Your task to perform on an android device: set the timer Image 0: 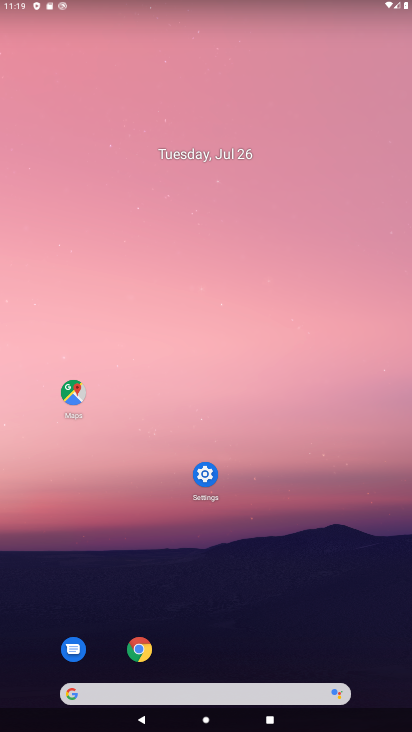
Step 0: click (393, 66)
Your task to perform on an android device: set the timer Image 1: 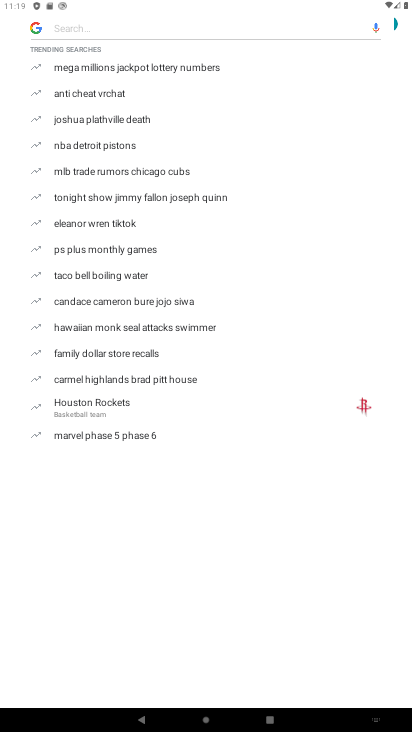
Step 1: press back button
Your task to perform on an android device: set the timer Image 2: 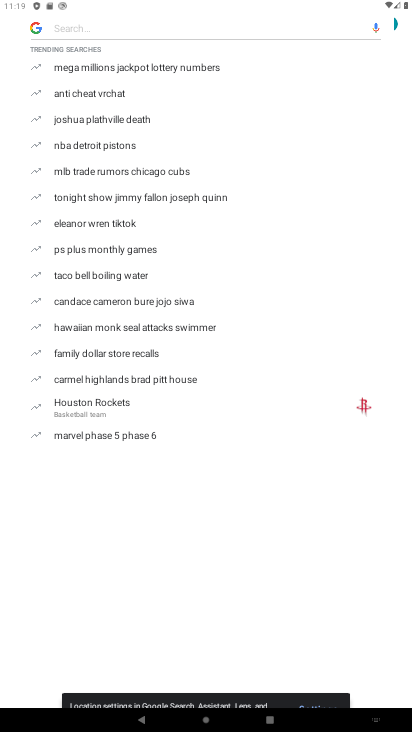
Step 2: press back button
Your task to perform on an android device: set the timer Image 3: 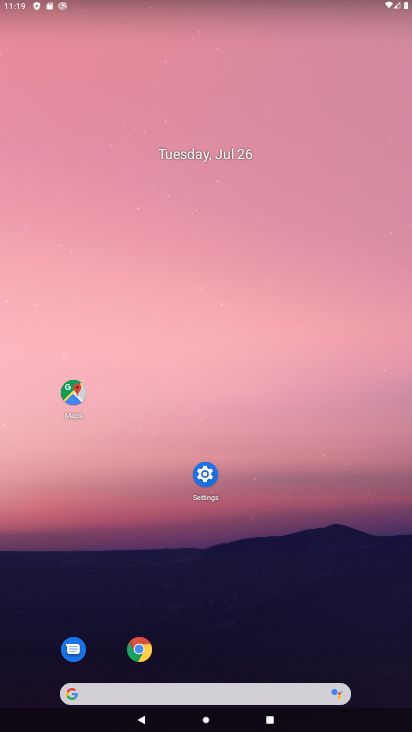
Step 3: drag from (259, 537) to (251, 44)
Your task to perform on an android device: set the timer Image 4: 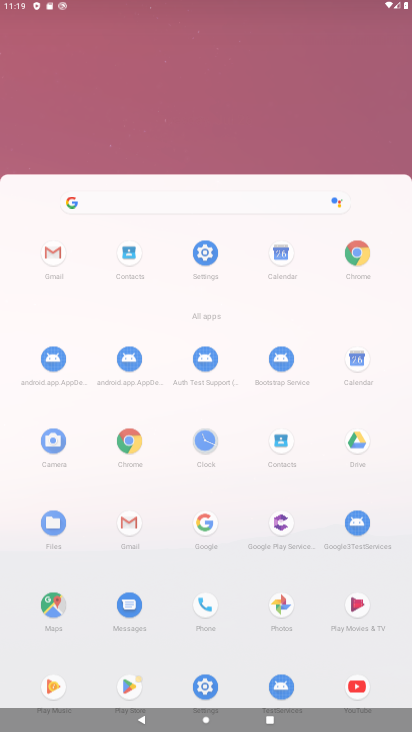
Step 4: drag from (249, 413) to (268, 24)
Your task to perform on an android device: set the timer Image 5: 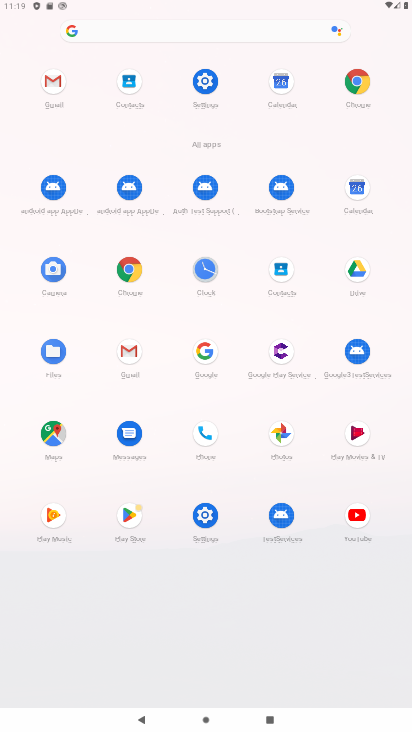
Step 5: click (204, 274)
Your task to perform on an android device: set the timer Image 6: 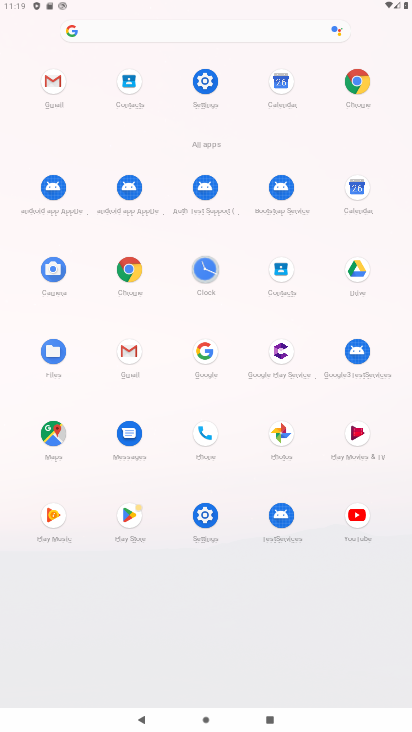
Step 6: click (203, 273)
Your task to perform on an android device: set the timer Image 7: 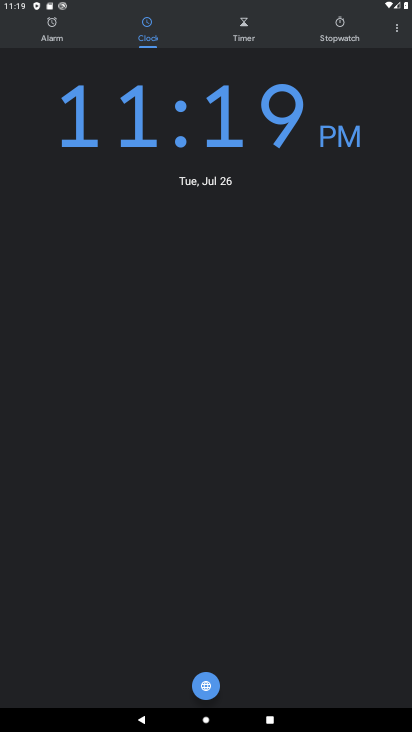
Step 7: click (236, 43)
Your task to perform on an android device: set the timer Image 8: 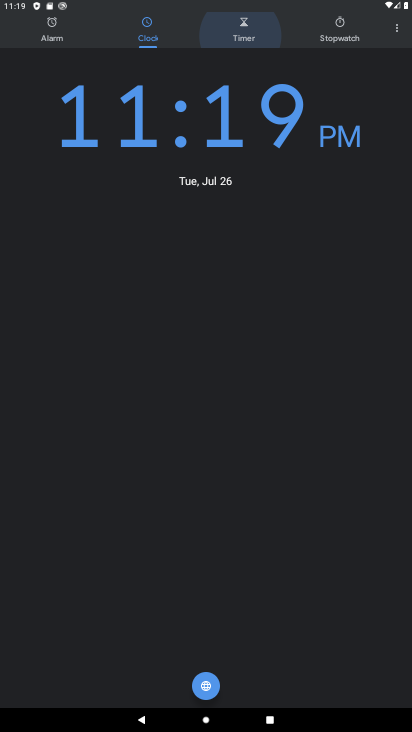
Step 8: click (236, 41)
Your task to perform on an android device: set the timer Image 9: 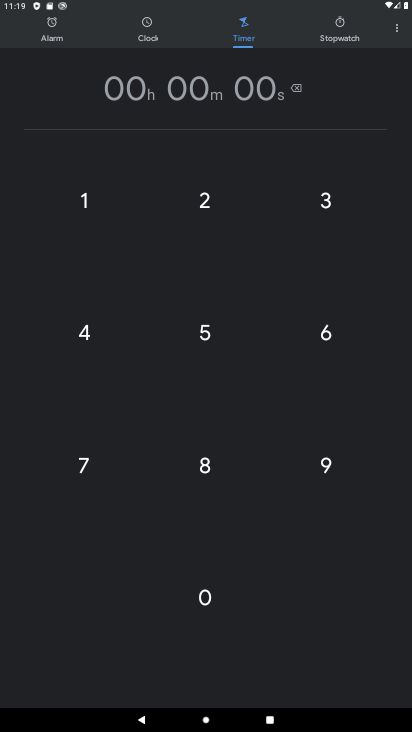
Step 9: click (238, 41)
Your task to perform on an android device: set the timer Image 10: 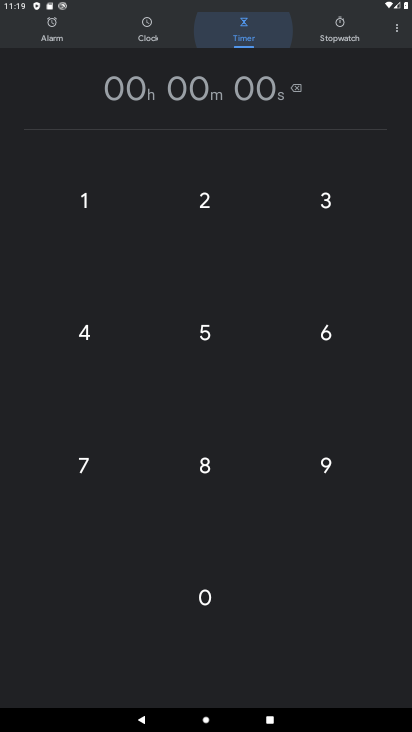
Step 10: click (239, 41)
Your task to perform on an android device: set the timer Image 11: 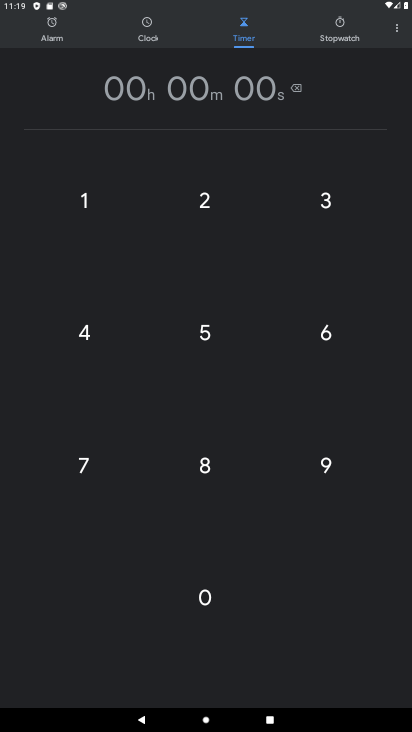
Step 11: click (203, 337)
Your task to perform on an android device: set the timer Image 12: 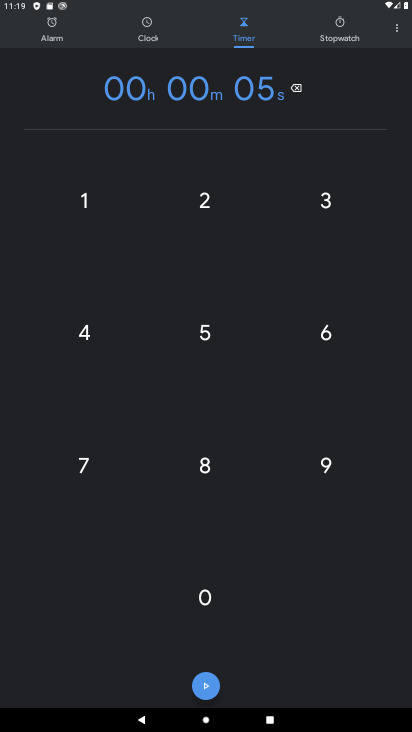
Step 12: click (211, 688)
Your task to perform on an android device: set the timer Image 13: 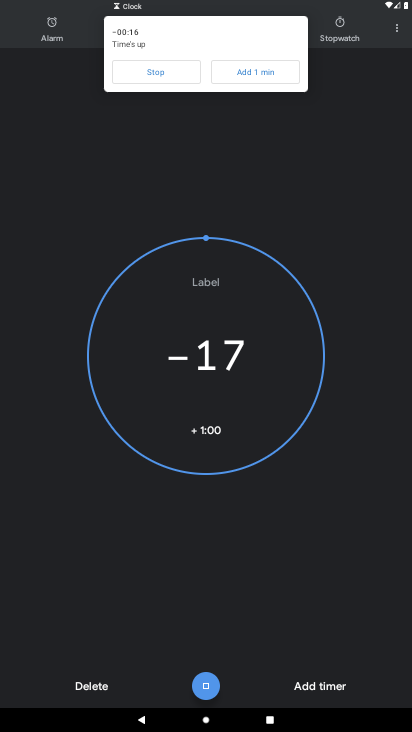
Step 13: click (202, 686)
Your task to perform on an android device: set the timer Image 14: 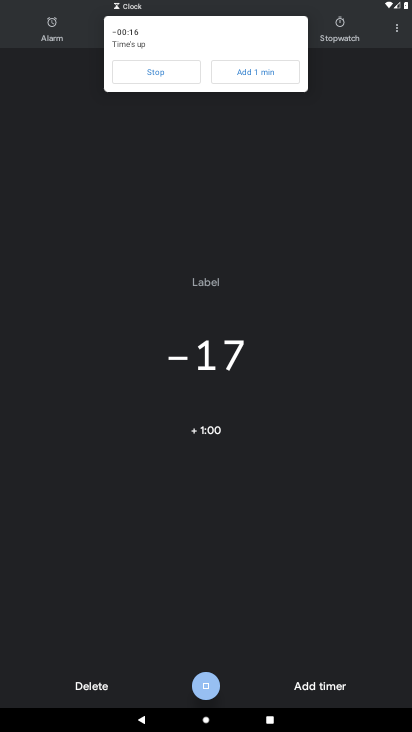
Step 14: click (213, 679)
Your task to perform on an android device: set the timer Image 15: 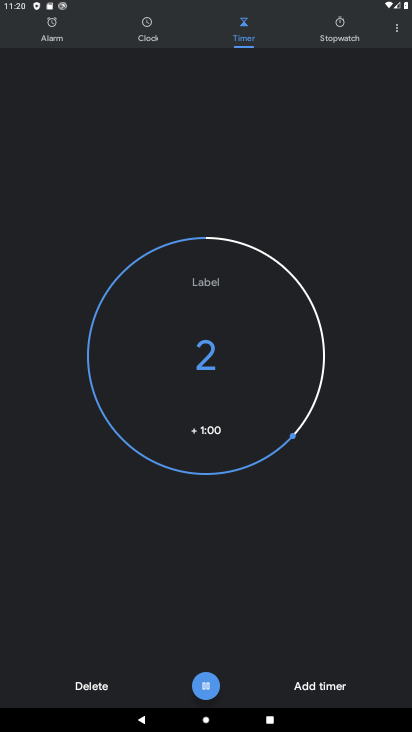
Step 15: click (204, 688)
Your task to perform on an android device: set the timer Image 16: 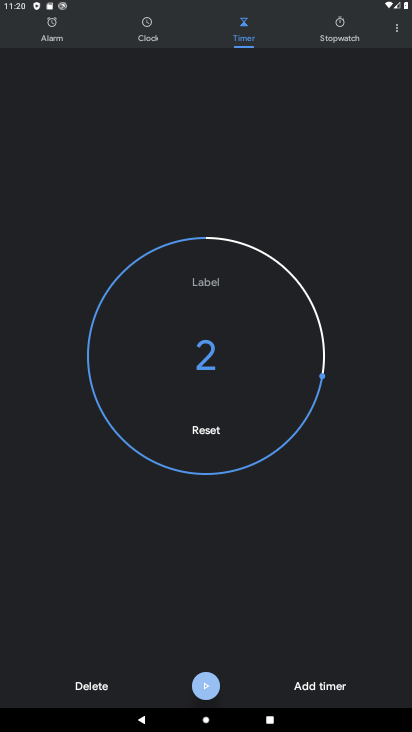
Step 16: click (209, 678)
Your task to perform on an android device: set the timer Image 17: 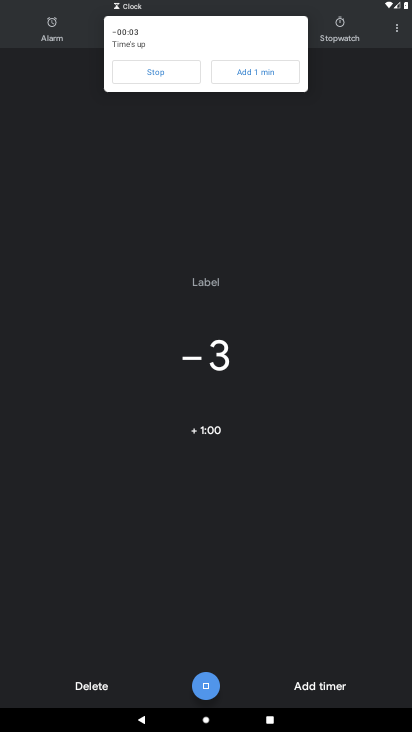
Step 17: click (210, 684)
Your task to perform on an android device: set the timer Image 18: 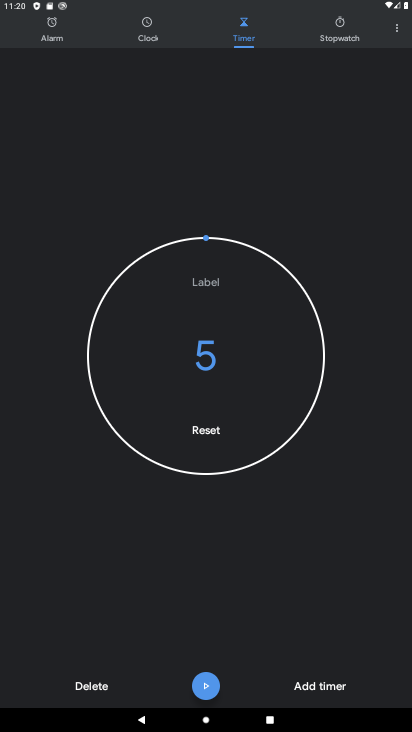
Step 18: task complete